Your task to perform on an android device: turn smart compose on in the gmail app Image 0: 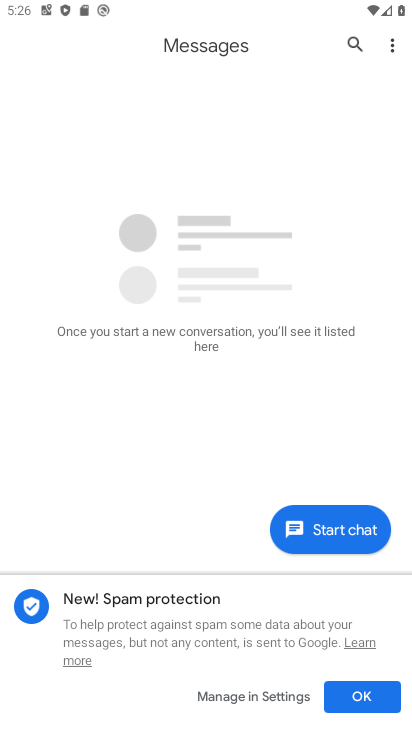
Step 0: press home button
Your task to perform on an android device: turn smart compose on in the gmail app Image 1: 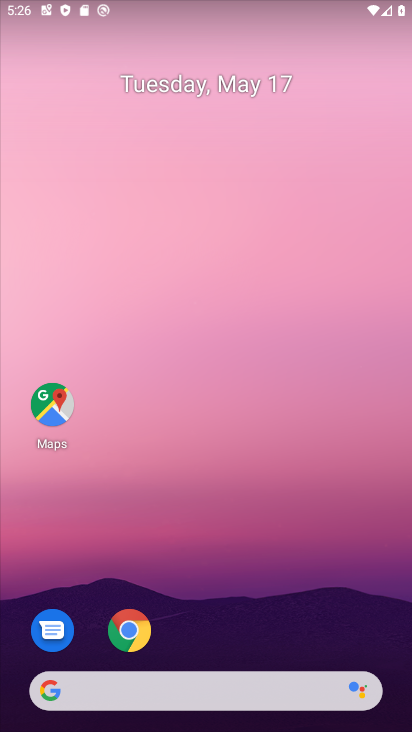
Step 1: drag from (282, 632) to (292, 137)
Your task to perform on an android device: turn smart compose on in the gmail app Image 2: 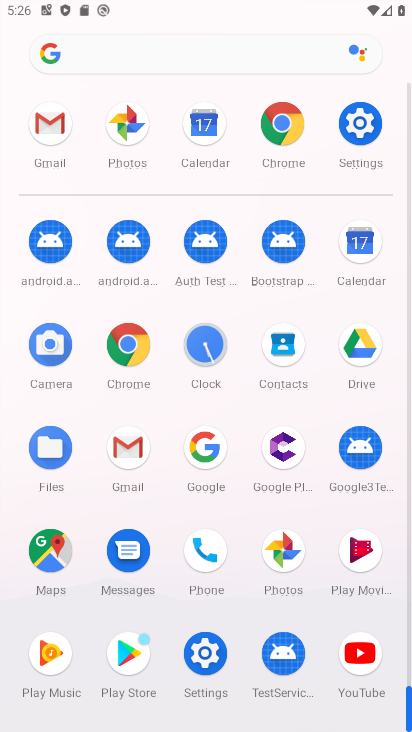
Step 2: click (54, 117)
Your task to perform on an android device: turn smart compose on in the gmail app Image 3: 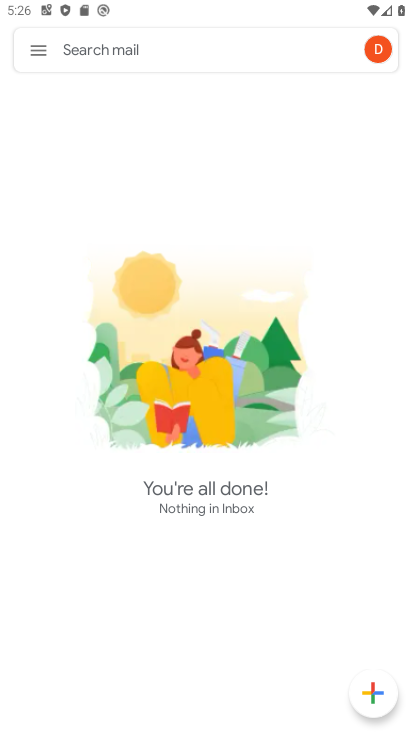
Step 3: click (38, 52)
Your task to perform on an android device: turn smart compose on in the gmail app Image 4: 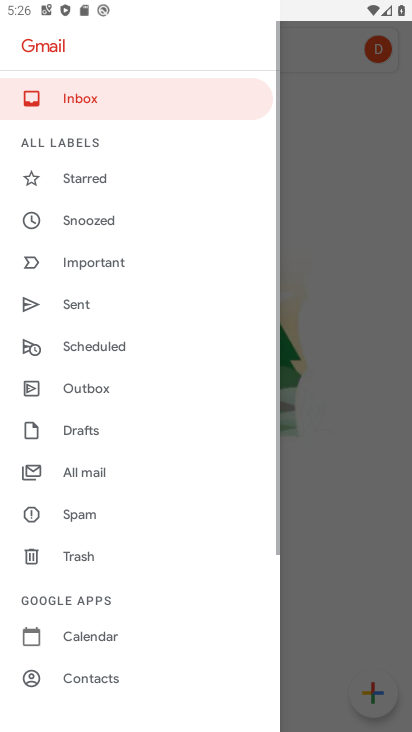
Step 4: drag from (119, 572) to (211, 174)
Your task to perform on an android device: turn smart compose on in the gmail app Image 5: 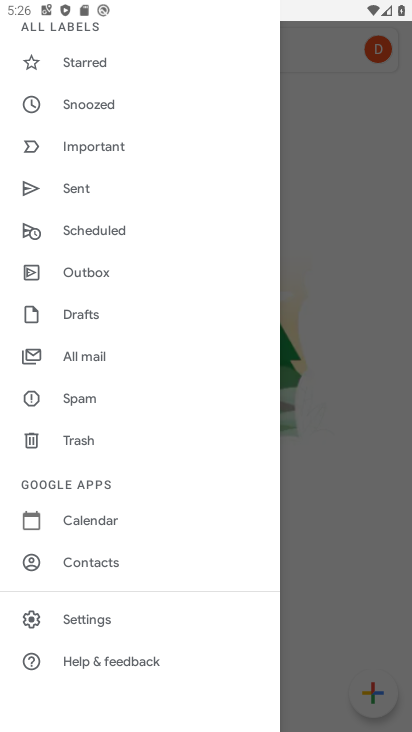
Step 5: click (86, 616)
Your task to perform on an android device: turn smart compose on in the gmail app Image 6: 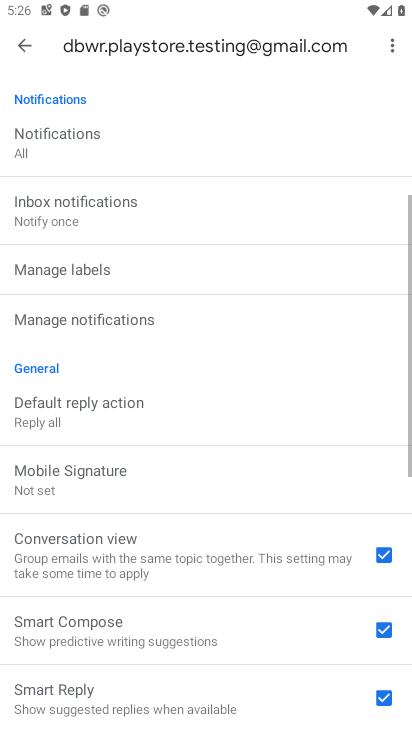
Step 6: task complete